Your task to perform on an android device: see sites visited before in the chrome app Image 0: 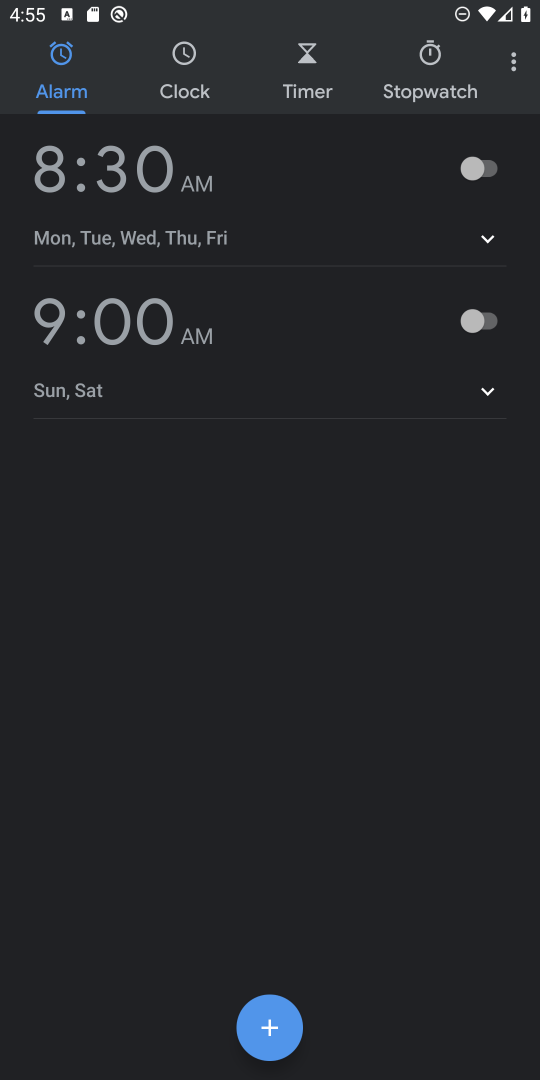
Step 0: press home button
Your task to perform on an android device: see sites visited before in the chrome app Image 1: 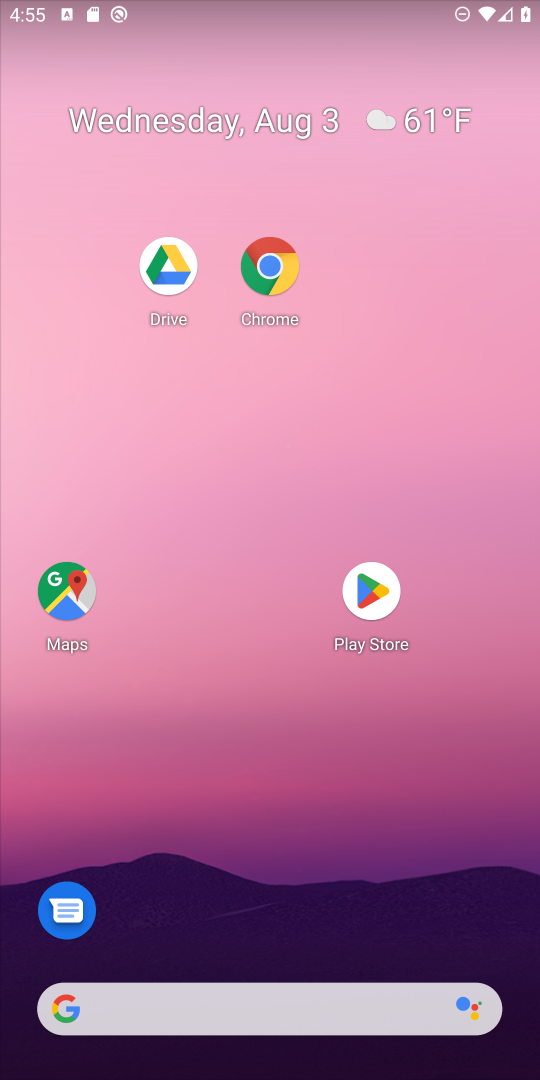
Step 1: drag from (284, 1022) to (439, 170)
Your task to perform on an android device: see sites visited before in the chrome app Image 2: 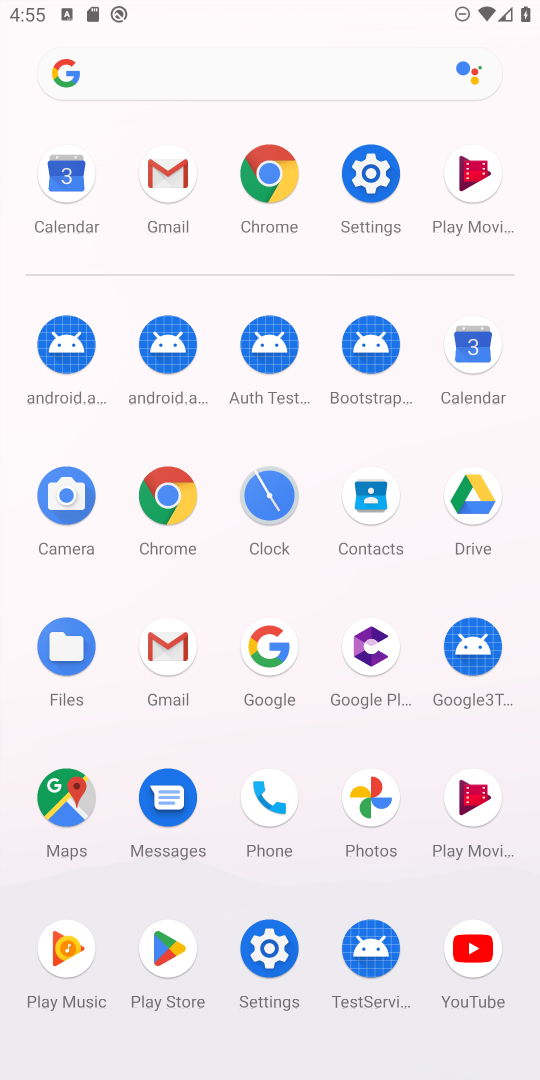
Step 2: click (167, 497)
Your task to perform on an android device: see sites visited before in the chrome app Image 3: 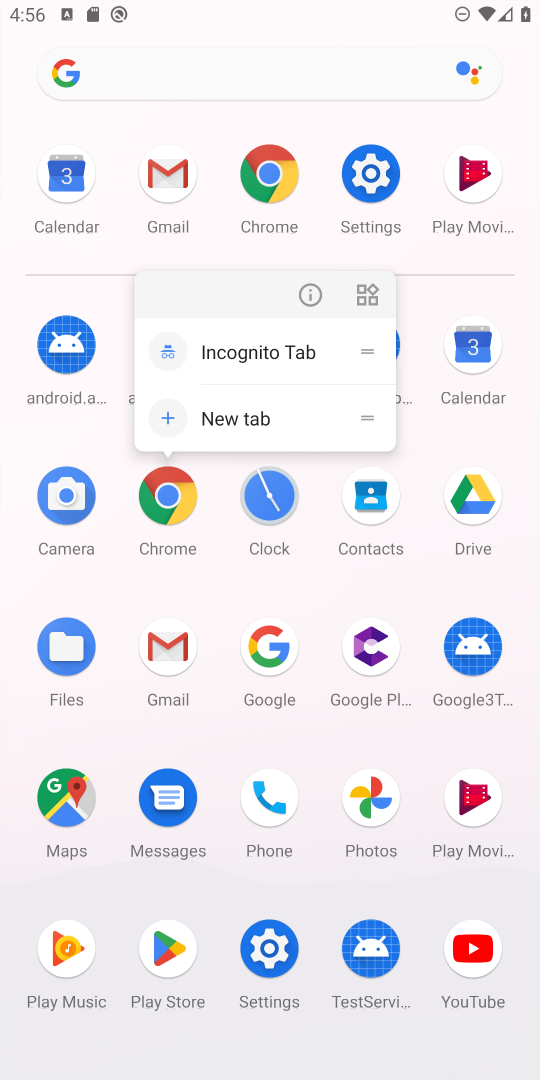
Step 3: click (182, 497)
Your task to perform on an android device: see sites visited before in the chrome app Image 4: 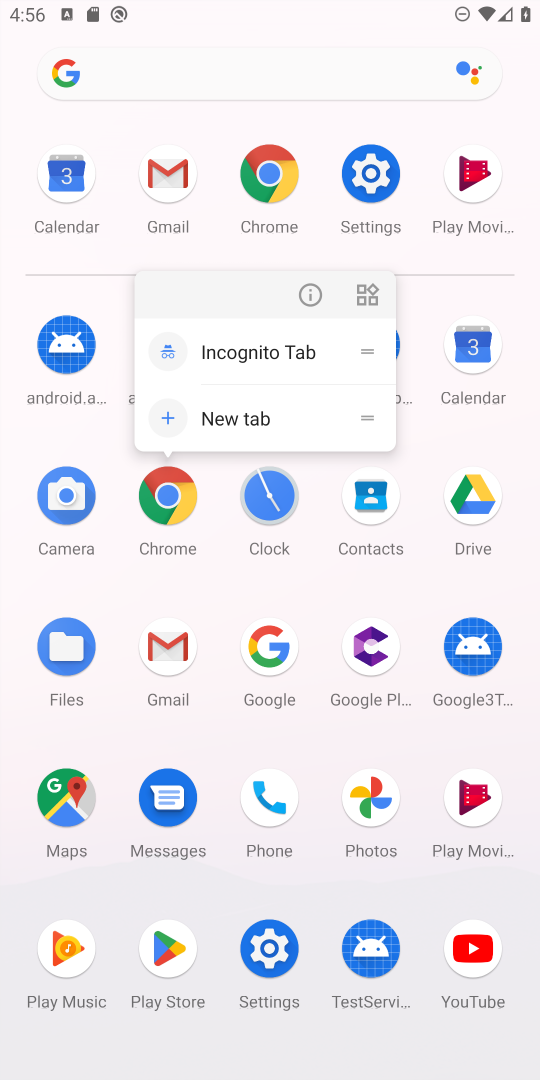
Step 4: click (182, 497)
Your task to perform on an android device: see sites visited before in the chrome app Image 5: 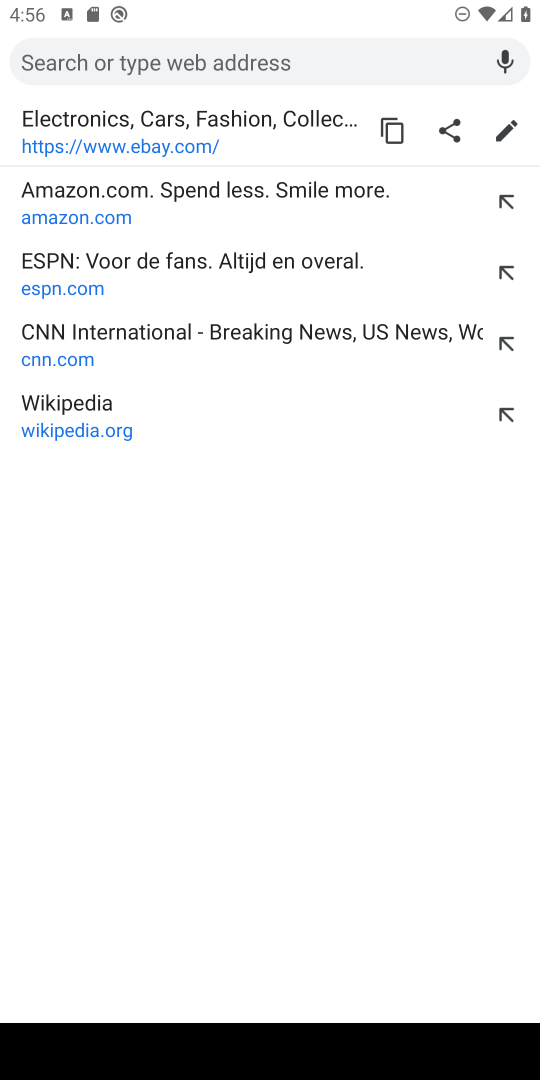
Step 5: press back button
Your task to perform on an android device: see sites visited before in the chrome app Image 6: 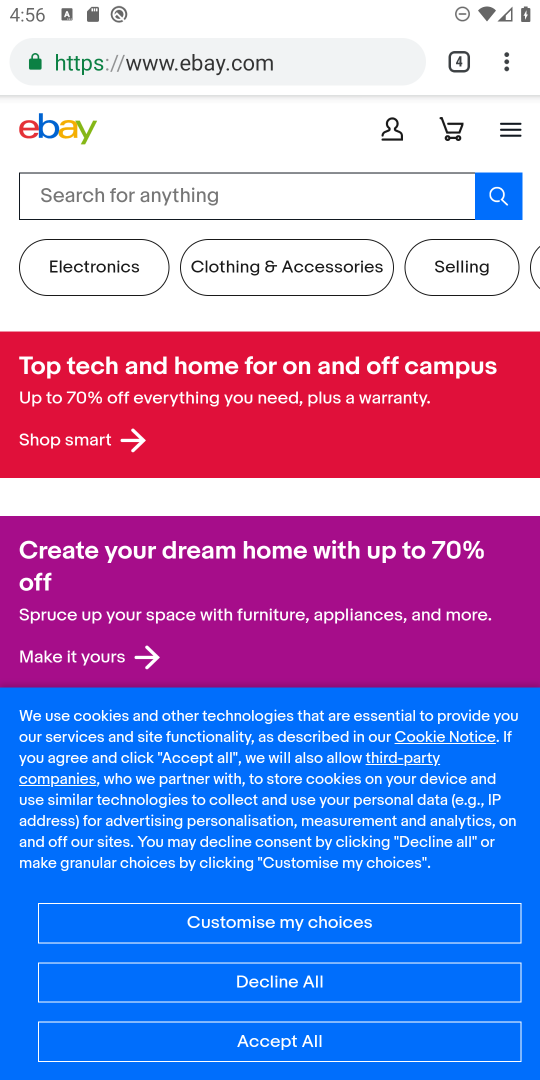
Step 6: drag from (511, 64) to (354, 282)
Your task to perform on an android device: see sites visited before in the chrome app Image 7: 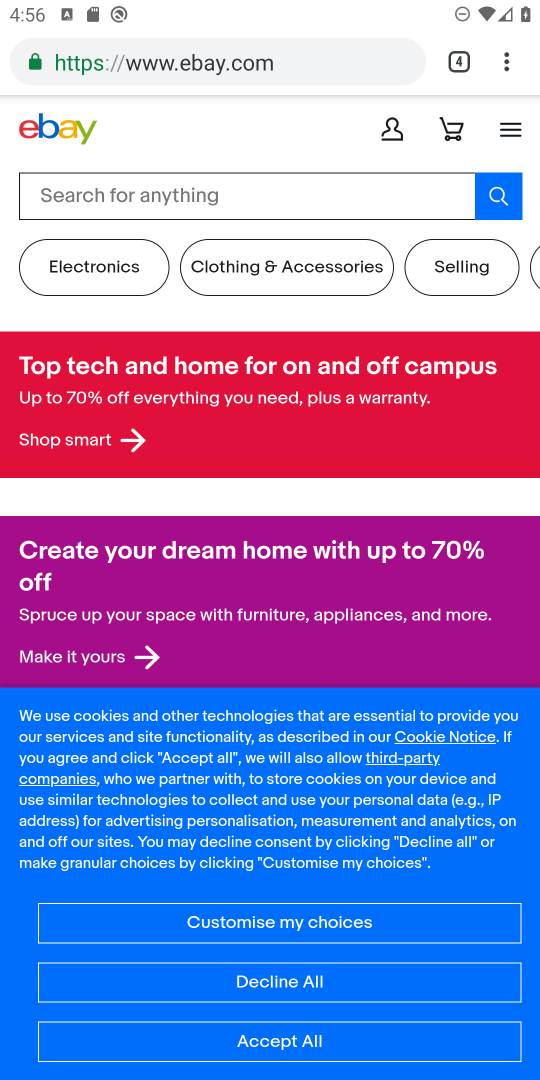
Step 7: click (354, 282)
Your task to perform on an android device: see sites visited before in the chrome app Image 8: 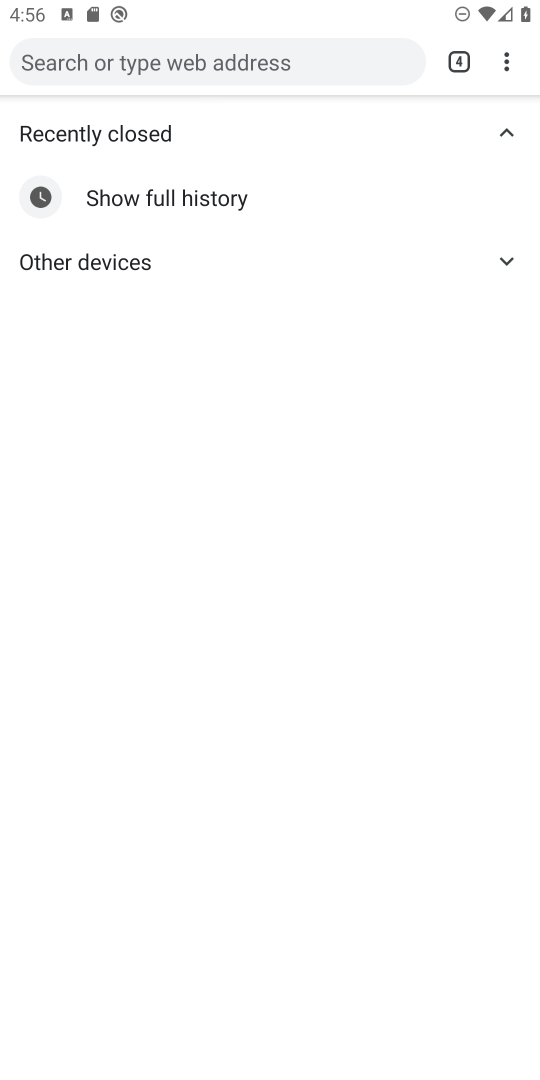
Step 8: task complete